Your task to perform on an android device: Go to location settings Image 0: 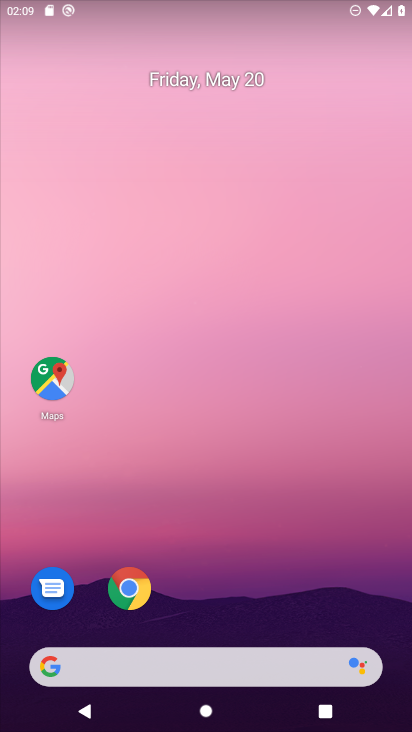
Step 0: drag from (391, 622) to (290, 41)
Your task to perform on an android device: Go to location settings Image 1: 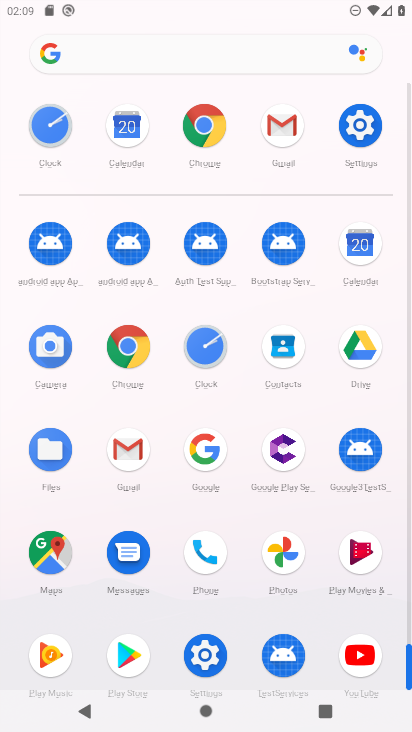
Step 1: click (206, 653)
Your task to perform on an android device: Go to location settings Image 2: 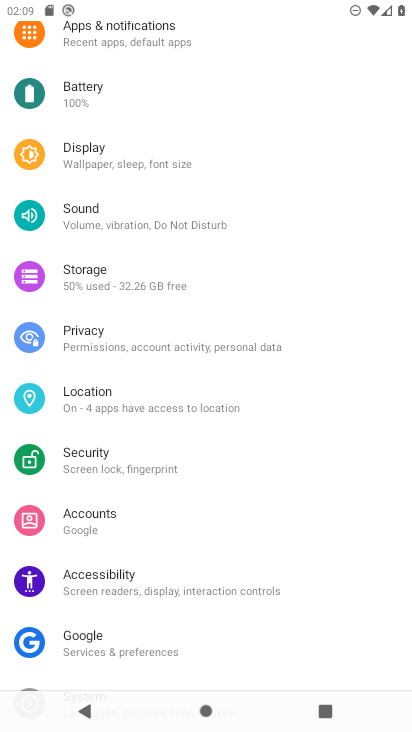
Step 2: click (89, 388)
Your task to perform on an android device: Go to location settings Image 3: 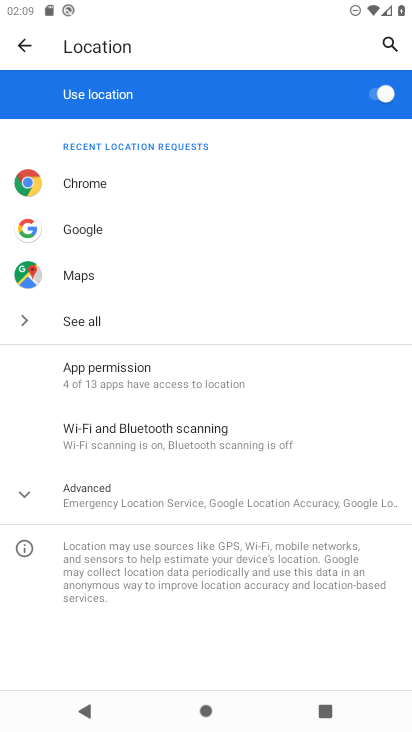
Step 3: click (27, 491)
Your task to perform on an android device: Go to location settings Image 4: 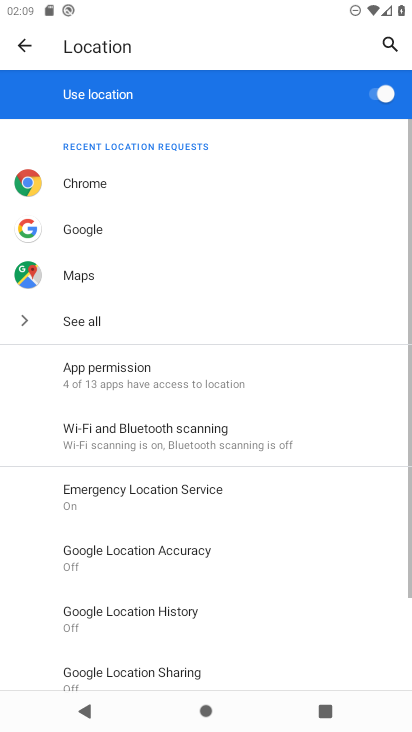
Step 4: task complete